Your task to perform on an android device: Turn off the flashlight Image 0: 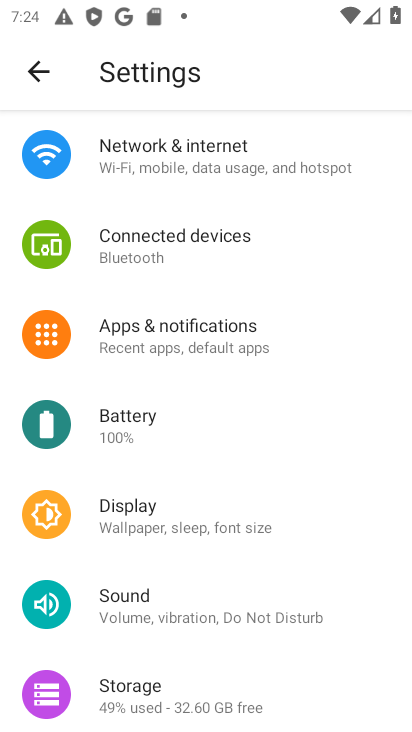
Step 0: drag from (220, 262) to (210, 537)
Your task to perform on an android device: Turn off the flashlight Image 1: 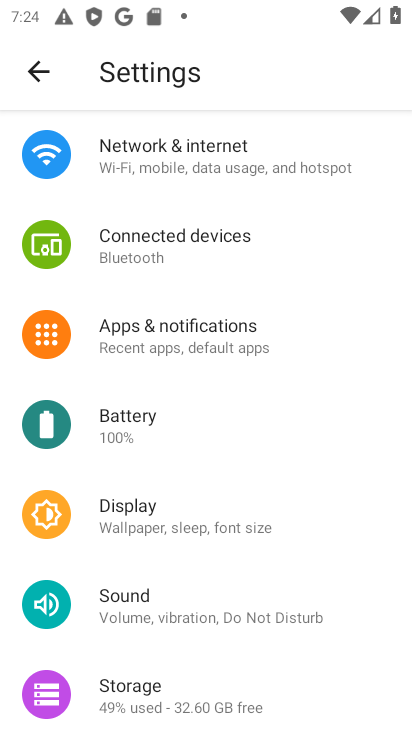
Step 1: click (37, 70)
Your task to perform on an android device: Turn off the flashlight Image 2: 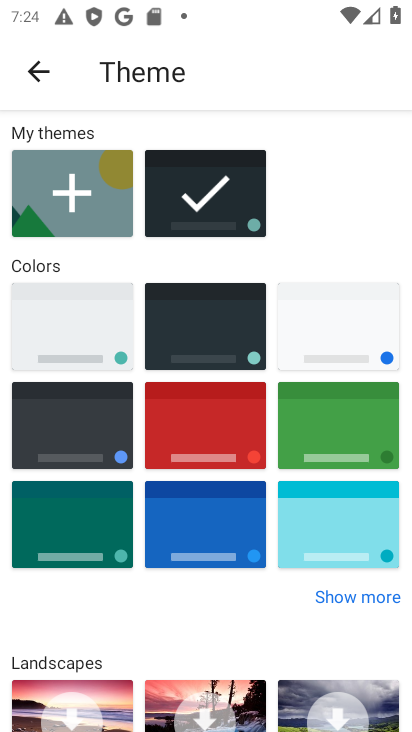
Step 2: press home button
Your task to perform on an android device: Turn off the flashlight Image 3: 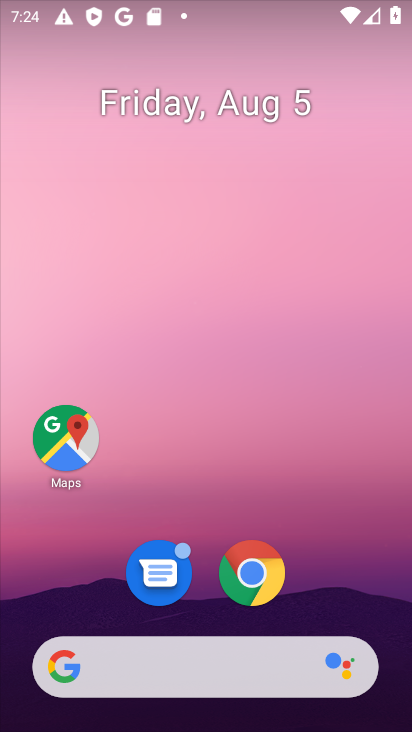
Step 3: drag from (330, 566) to (297, 3)
Your task to perform on an android device: Turn off the flashlight Image 4: 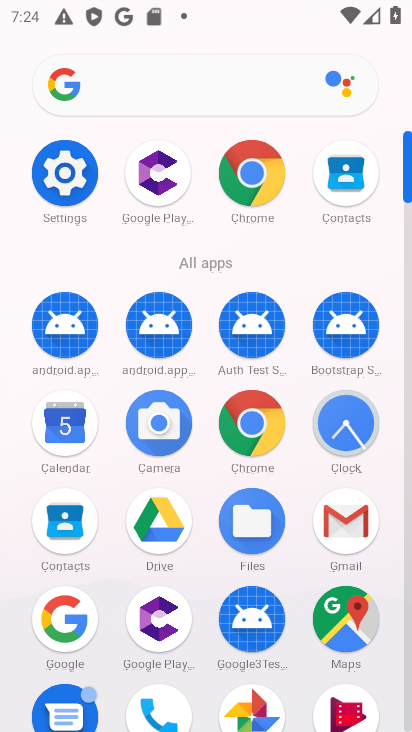
Step 4: drag from (207, 542) to (217, 193)
Your task to perform on an android device: Turn off the flashlight Image 5: 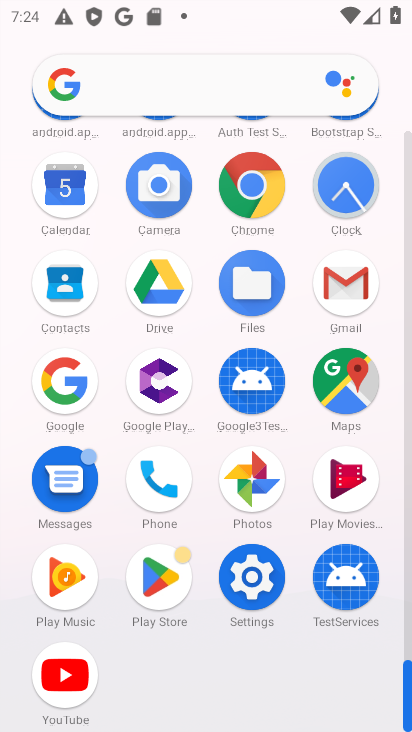
Step 5: click (243, 576)
Your task to perform on an android device: Turn off the flashlight Image 6: 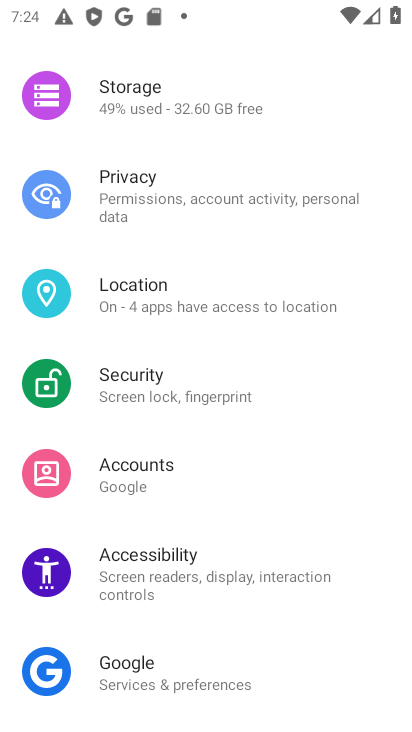
Step 6: drag from (266, 260) to (295, 556)
Your task to perform on an android device: Turn off the flashlight Image 7: 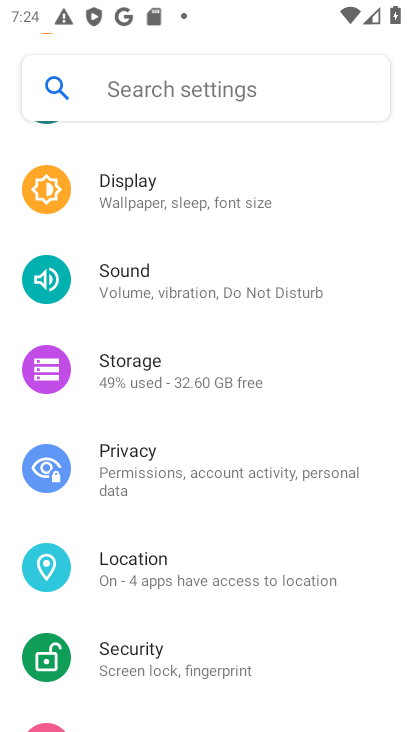
Step 7: drag from (259, 234) to (253, 575)
Your task to perform on an android device: Turn off the flashlight Image 8: 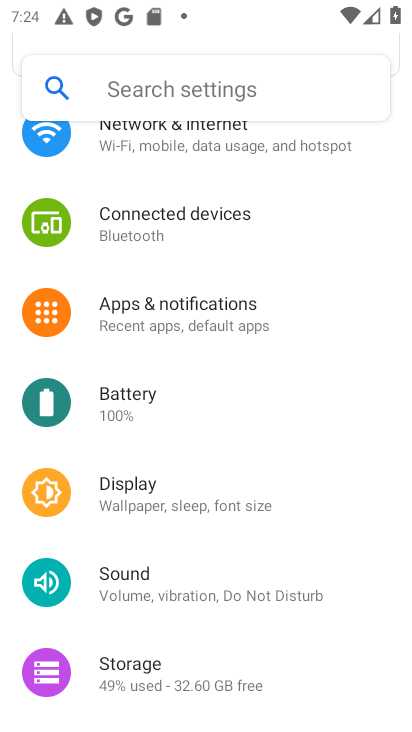
Step 8: drag from (208, 222) to (191, 639)
Your task to perform on an android device: Turn off the flashlight Image 9: 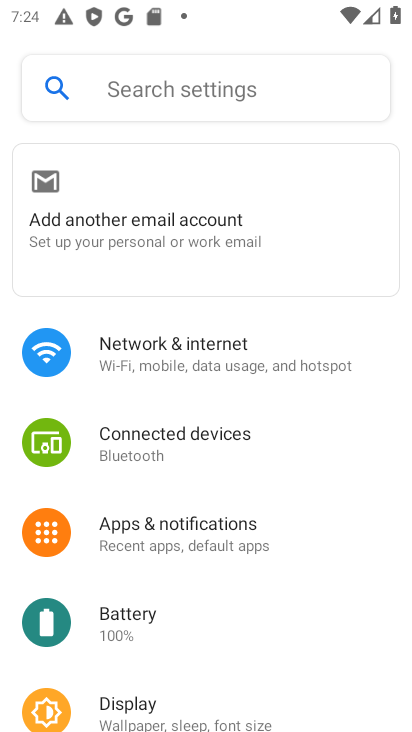
Step 9: click (222, 83)
Your task to perform on an android device: Turn off the flashlight Image 10: 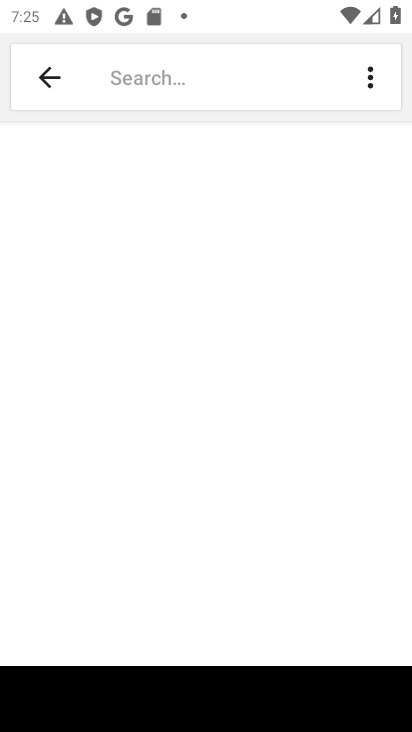
Step 10: type "Flashlight"
Your task to perform on an android device: Turn off the flashlight Image 11: 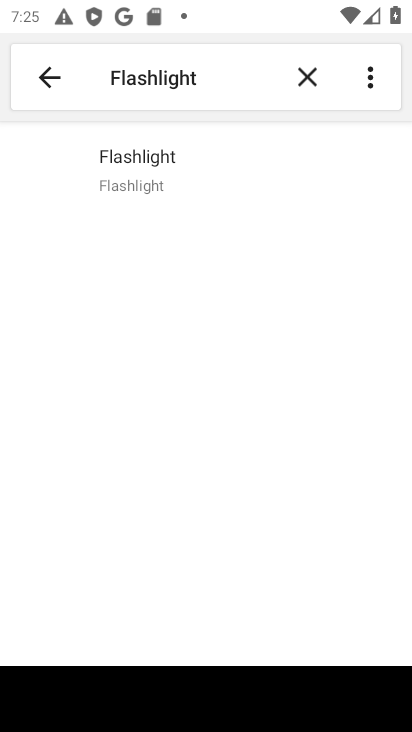
Step 11: click (149, 181)
Your task to perform on an android device: Turn off the flashlight Image 12: 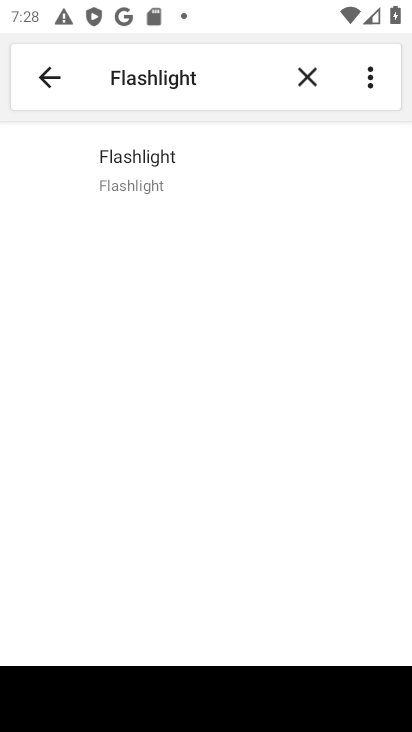
Step 12: task complete